Your task to perform on an android device: turn off priority inbox in the gmail app Image 0: 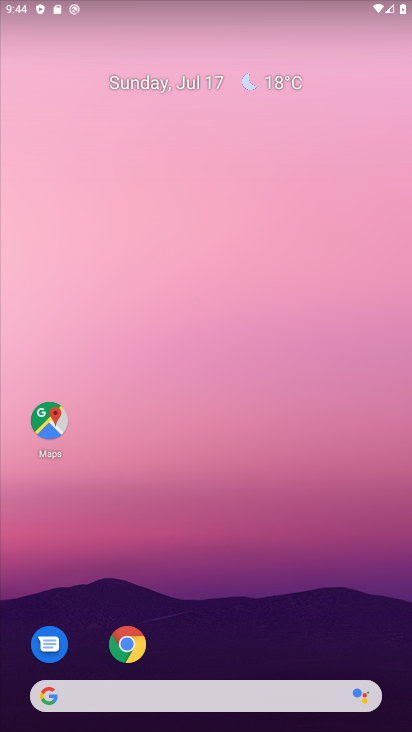
Step 0: drag from (392, 673) to (317, 59)
Your task to perform on an android device: turn off priority inbox in the gmail app Image 1: 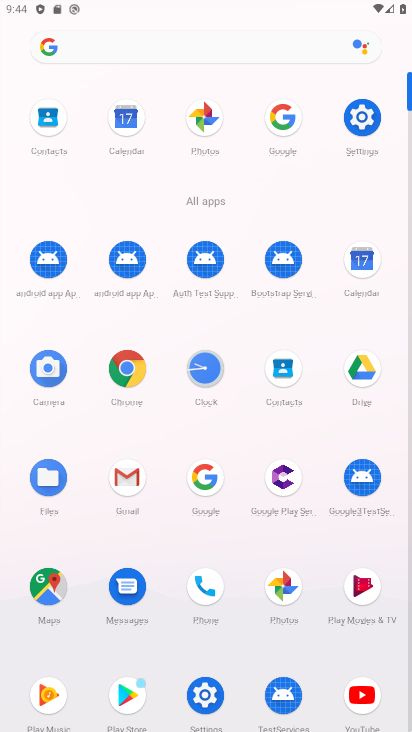
Step 1: click (127, 483)
Your task to perform on an android device: turn off priority inbox in the gmail app Image 2: 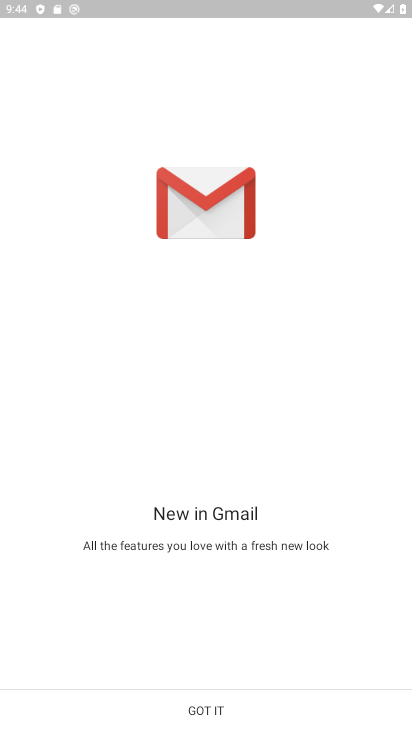
Step 2: click (221, 700)
Your task to perform on an android device: turn off priority inbox in the gmail app Image 3: 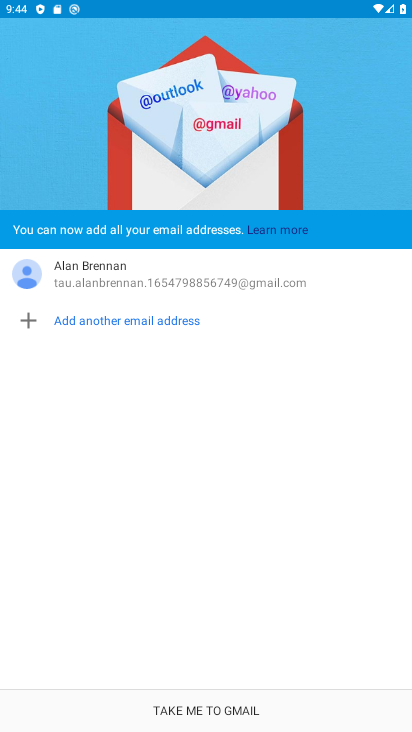
Step 3: click (221, 710)
Your task to perform on an android device: turn off priority inbox in the gmail app Image 4: 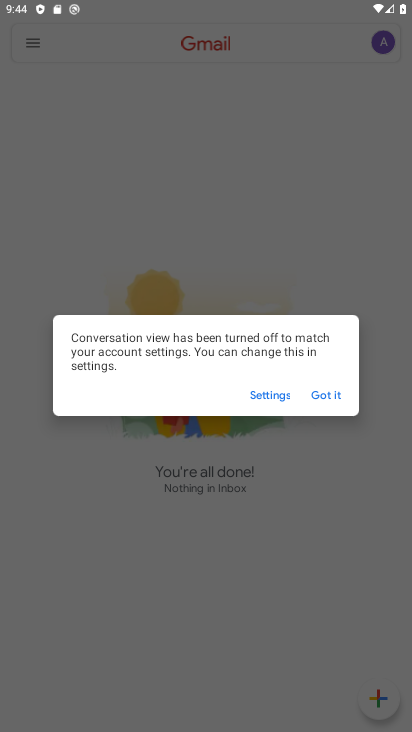
Step 4: click (331, 396)
Your task to perform on an android device: turn off priority inbox in the gmail app Image 5: 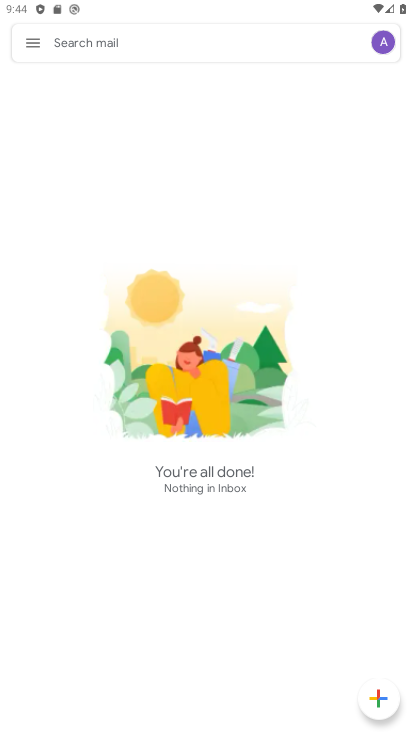
Step 5: click (32, 43)
Your task to perform on an android device: turn off priority inbox in the gmail app Image 6: 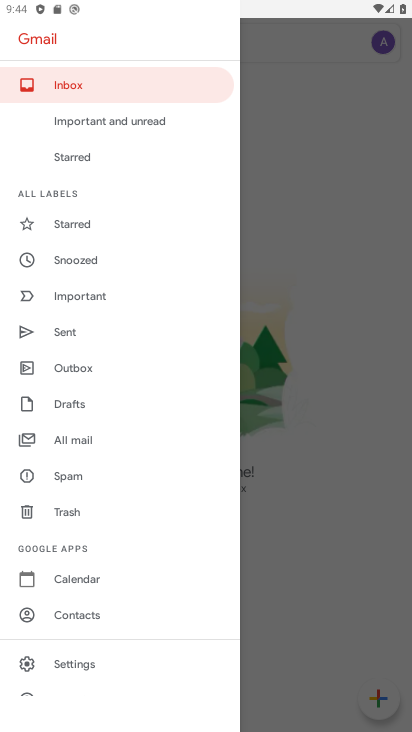
Step 6: click (68, 654)
Your task to perform on an android device: turn off priority inbox in the gmail app Image 7: 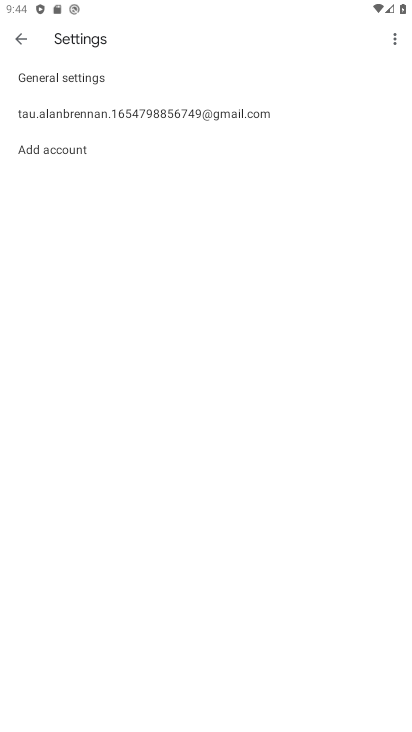
Step 7: click (106, 116)
Your task to perform on an android device: turn off priority inbox in the gmail app Image 8: 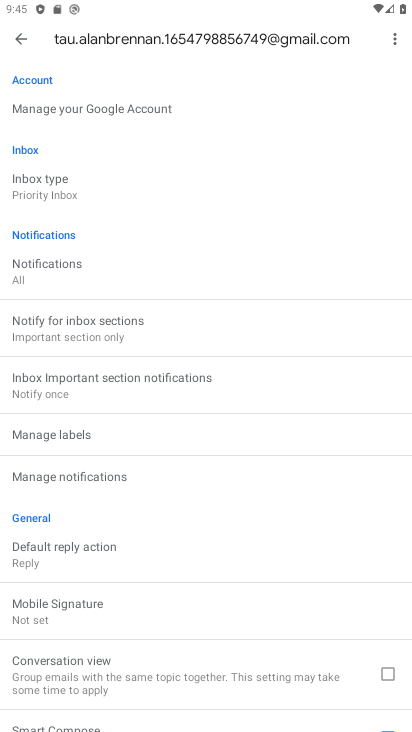
Step 8: click (49, 190)
Your task to perform on an android device: turn off priority inbox in the gmail app Image 9: 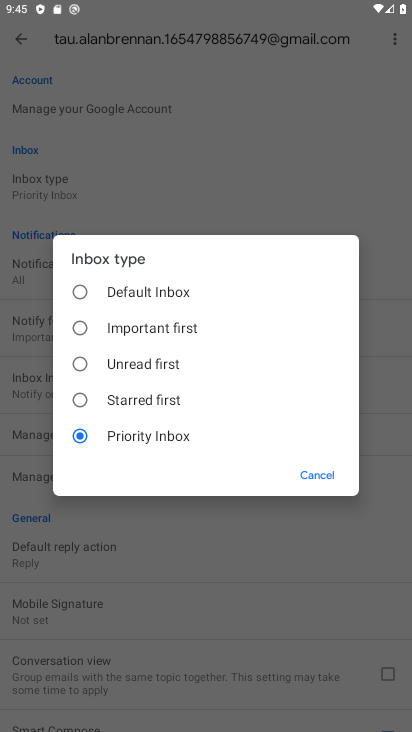
Step 9: click (72, 287)
Your task to perform on an android device: turn off priority inbox in the gmail app Image 10: 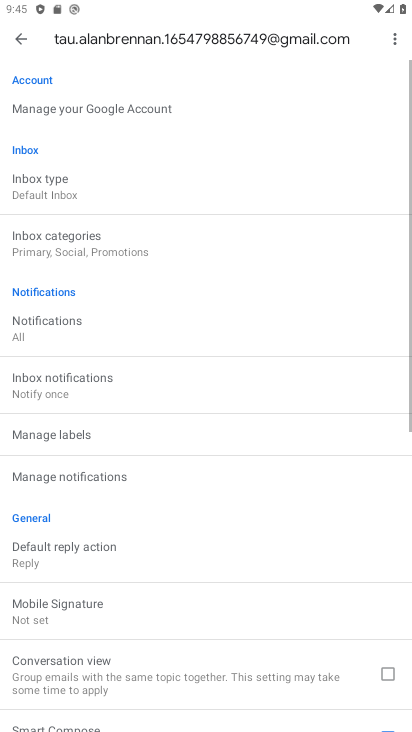
Step 10: task complete